Your task to perform on an android device: toggle javascript in the chrome app Image 0: 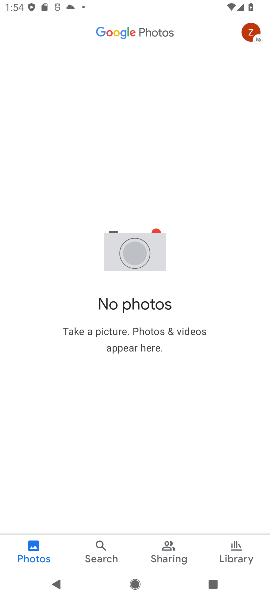
Step 0: press home button
Your task to perform on an android device: toggle javascript in the chrome app Image 1: 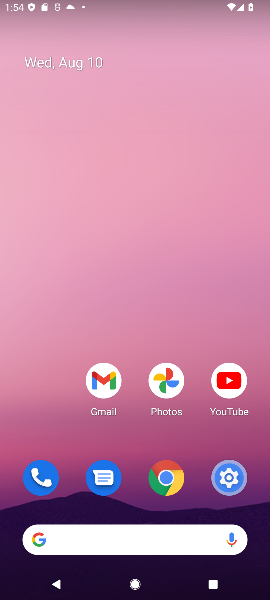
Step 1: click (168, 481)
Your task to perform on an android device: toggle javascript in the chrome app Image 2: 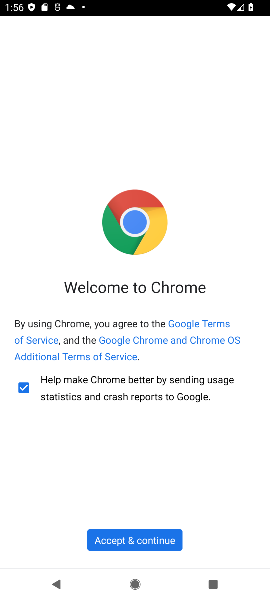
Step 2: task complete